Your task to perform on an android device: turn pop-ups on in chrome Image 0: 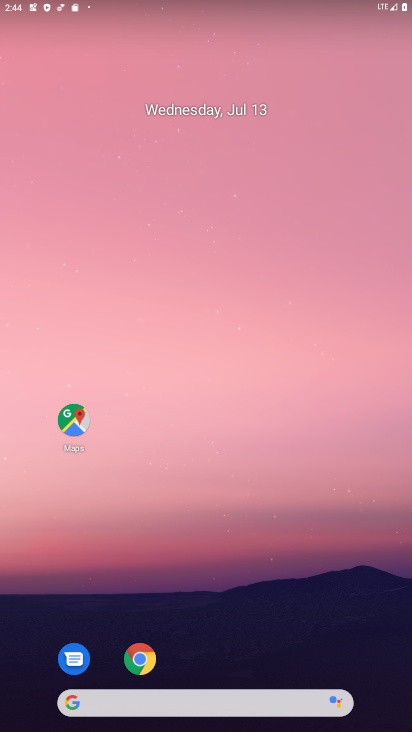
Step 0: click (137, 661)
Your task to perform on an android device: turn pop-ups on in chrome Image 1: 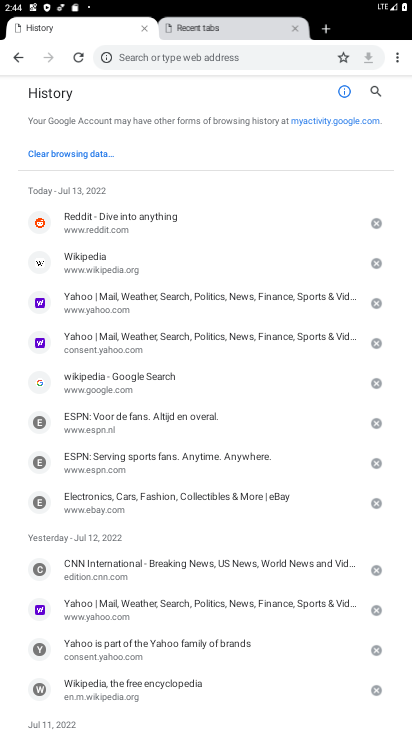
Step 1: click (394, 56)
Your task to perform on an android device: turn pop-ups on in chrome Image 2: 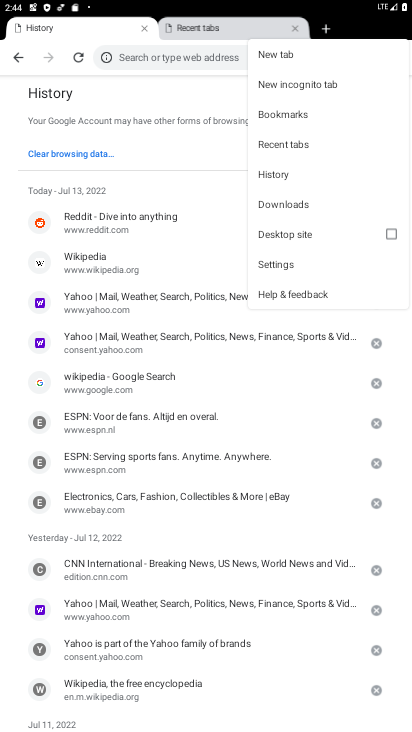
Step 2: click (273, 263)
Your task to perform on an android device: turn pop-ups on in chrome Image 3: 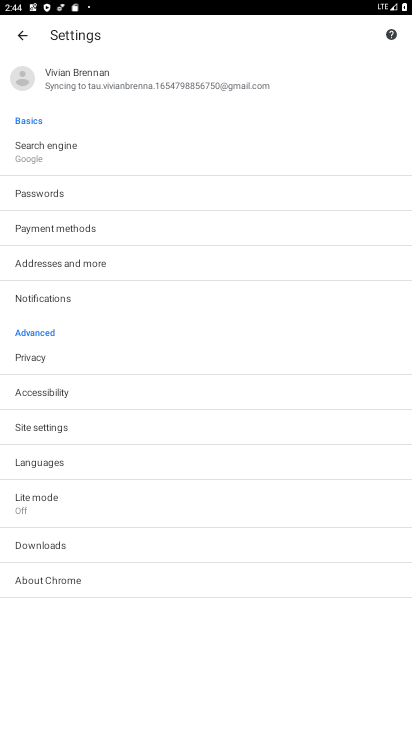
Step 3: click (41, 429)
Your task to perform on an android device: turn pop-ups on in chrome Image 4: 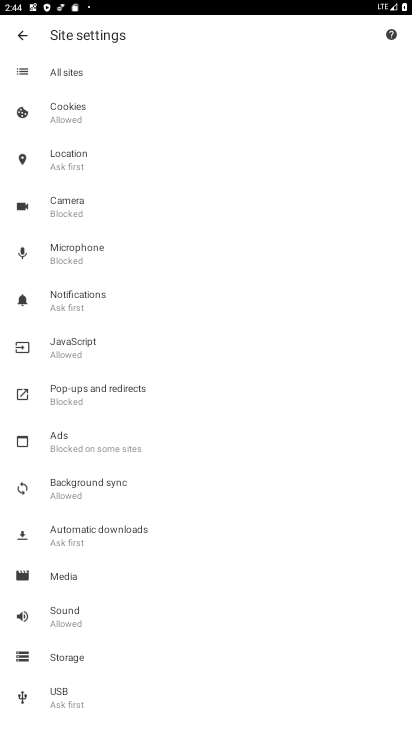
Step 4: click (65, 388)
Your task to perform on an android device: turn pop-ups on in chrome Image 5: 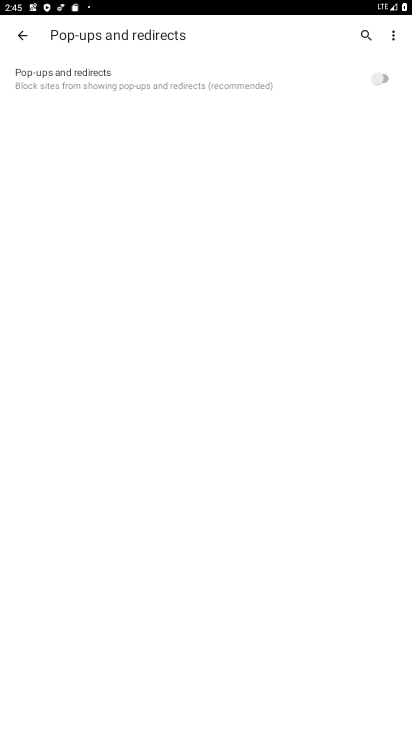
Step 5: click (387, 76)
Your task to perform on an android device: turn pop-ups on in chrome Image 6: 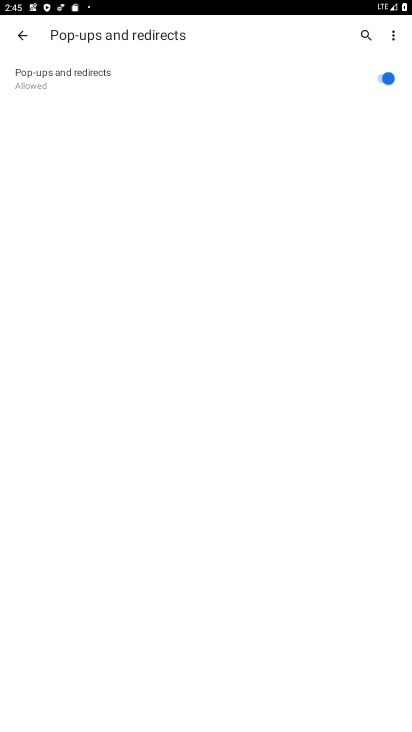
Step 6: task complete